Your task to perform on an android device: turn off notifications in google photos Image 0: 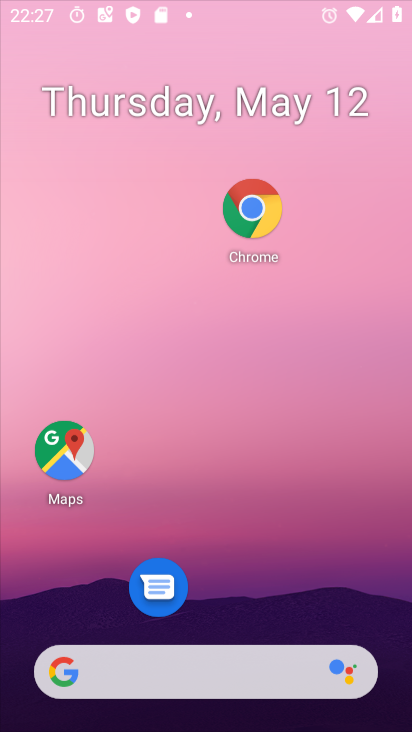
Step 0: drag from (265, 610) to (293, 207)
Your task to perform on an android device: turn off notifications in google photos Image 1: 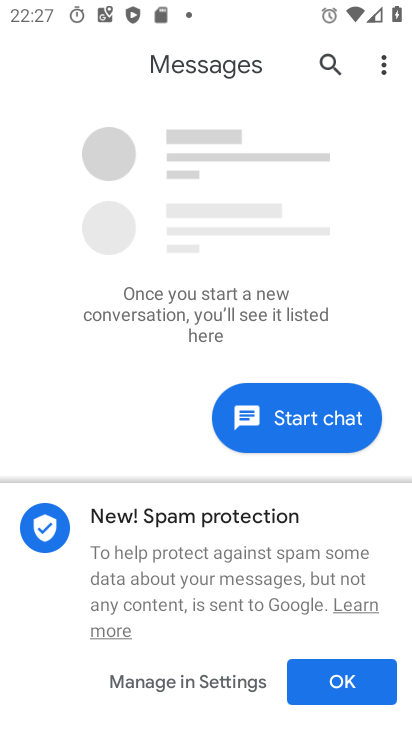
Step 1: press home button
Your task to perform on an android device: turn off notifications in google photos Image 2: 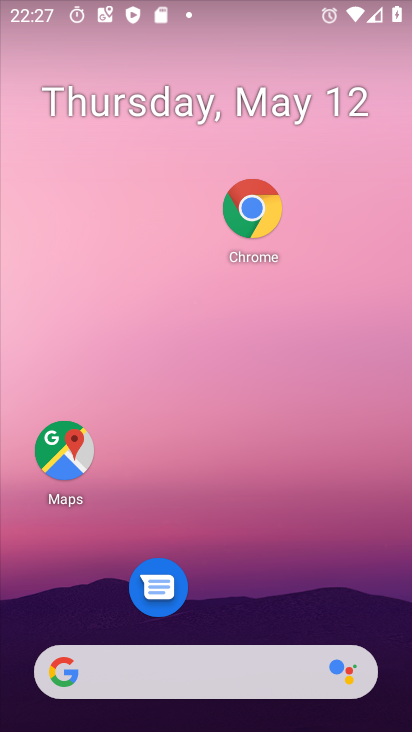
Step 2: drag from (325, 629) to (307, 229)
Your task to perform on an android device: turn off notifications in google photos Image 3: 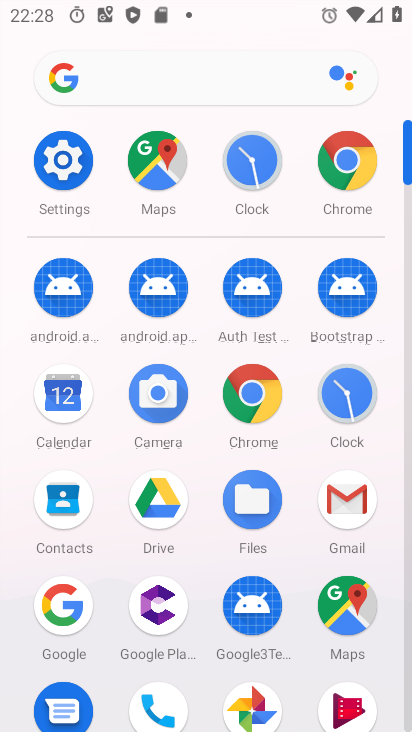
Step 3: drag from (217, 623) to (260, 264)
Your task to perform on an android device: turn off notifications in google photos Image 4: 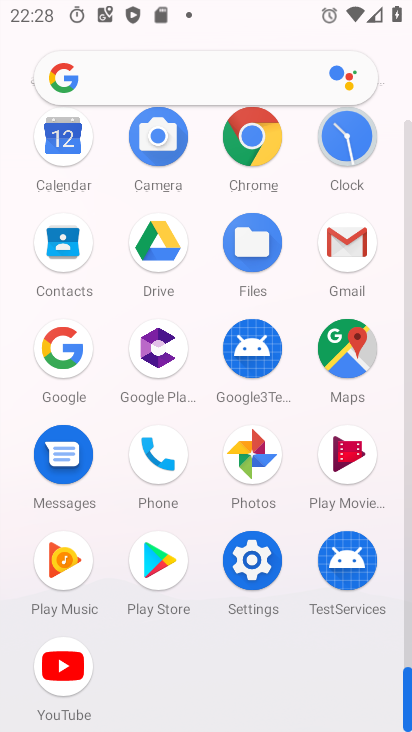
Step 4: click (253, 441)
Your task to perform on an android device: turn off notifications in google photos Image 5: 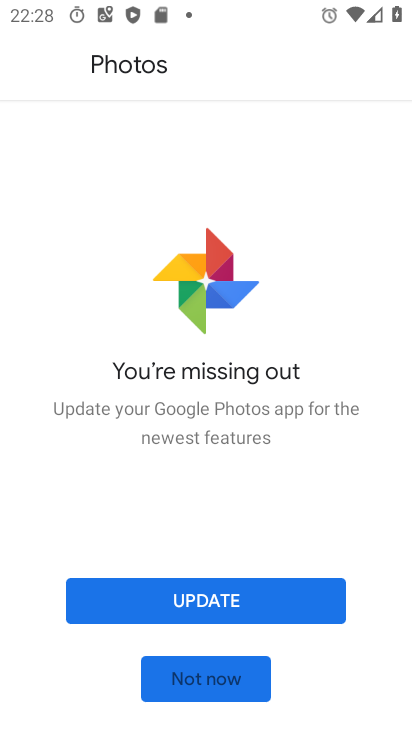
Step 5: click (210, 673)
Your task to perform on an android device: turn off notifications in google photos Image 6: 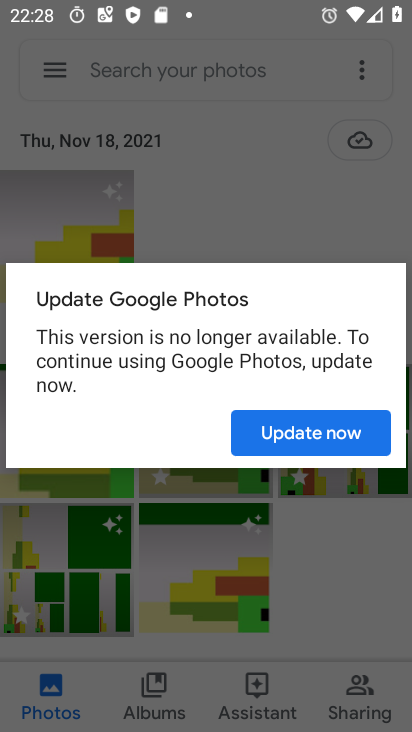
Step 6: click (281, 434)
Your task to perform on an android device: turn off notifications in google photos Image 7: 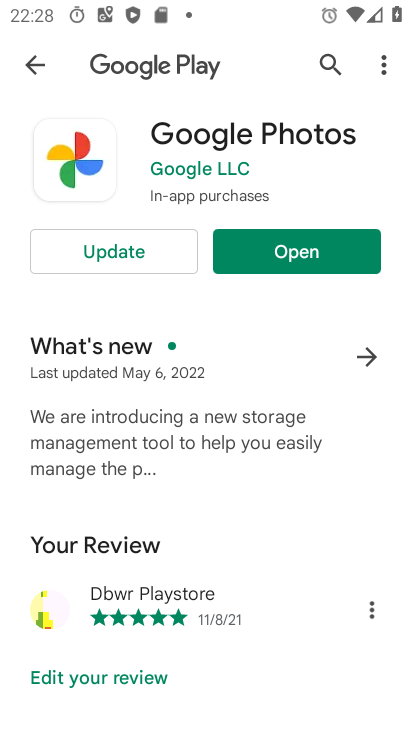
Step 7: press back button
Your task to perform on an android device: turn off notifications in google photos Image 8: 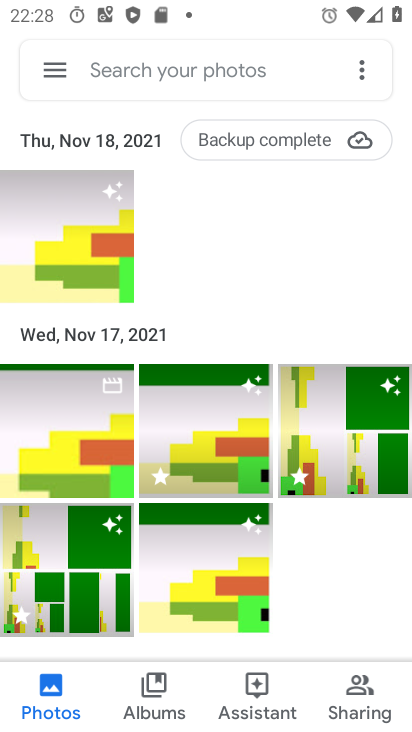
Step 8: click (78, 413)
Your task to perform on an android device: turn off notifications in google photos Image 9: 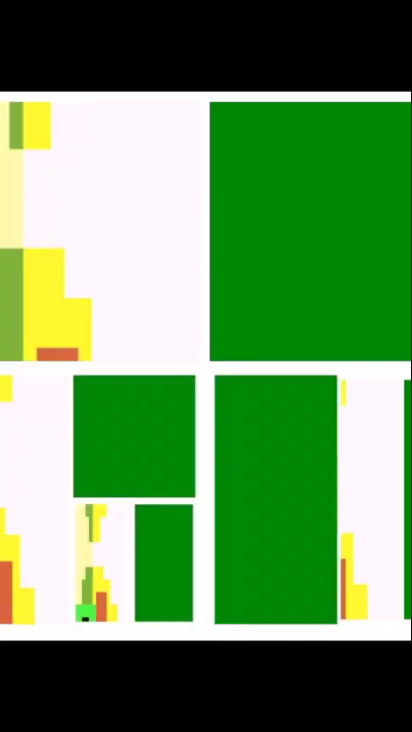
Step 9: press back button
Your task to perform on an android device: turn off notifications in google photos Image 10: 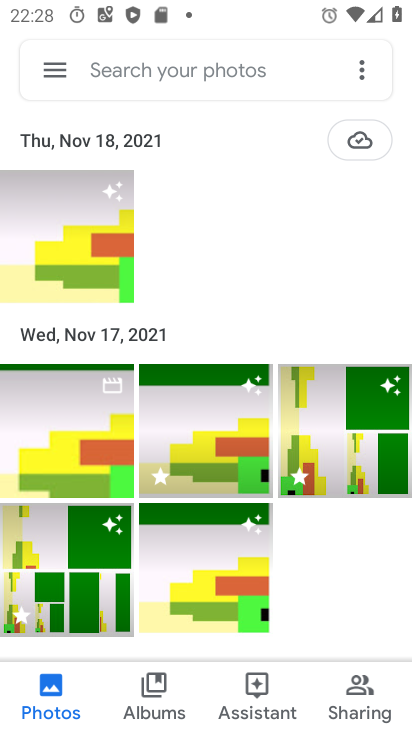
Step 10: click (56, 68)
Your task to perform on an android device: turn off notifications in google photos Image 11: 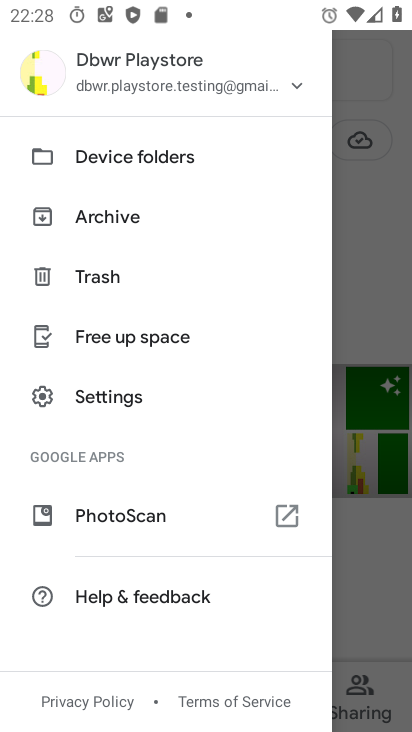
Step 11: drag from (150, 463) to (186, 211)
Your task to perform on an android device: turn off notifications in google photos Image 12: 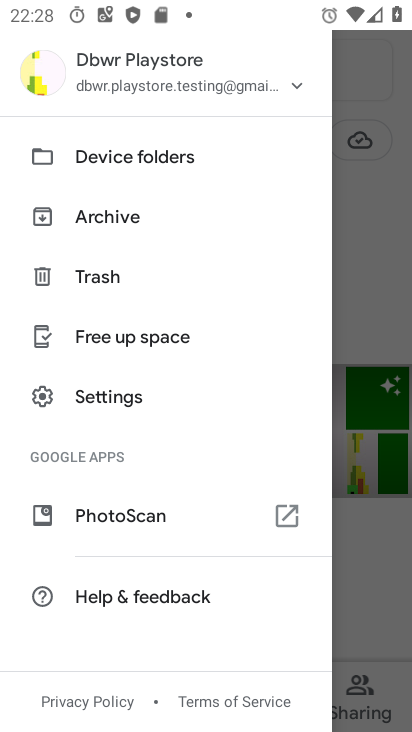
Step 12: click (112, 396)
Your task to perform on an android device: turn off notifications in google photos Image 13: 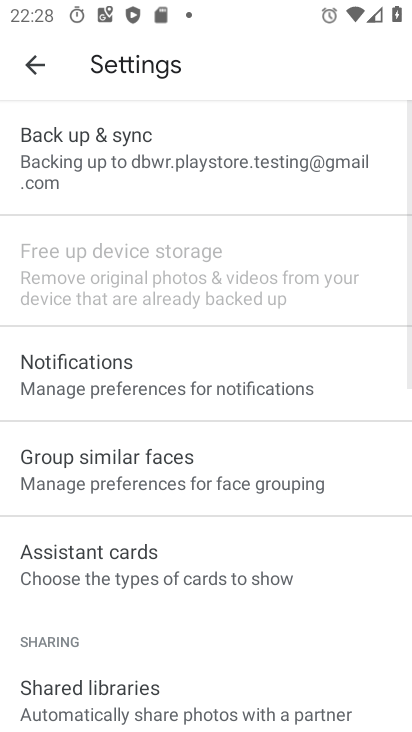
Step 13: click (156, 359)
Your task to perform on an android device: turn off notifications in google photos Image 14: 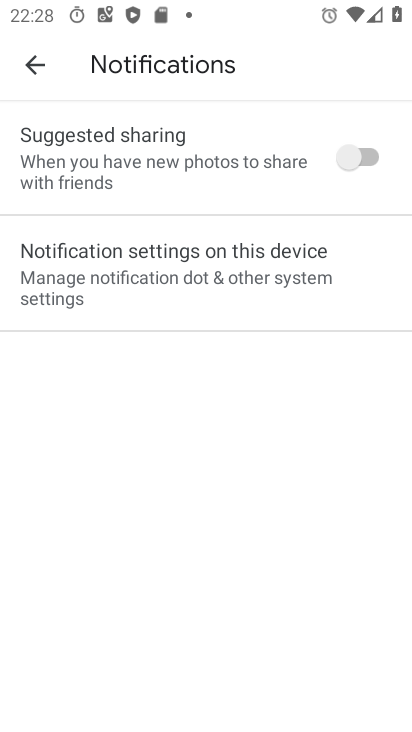
Step 14: click (146, 243)
Your task to perform on an android device: turn off notifications in google photos Image 15: 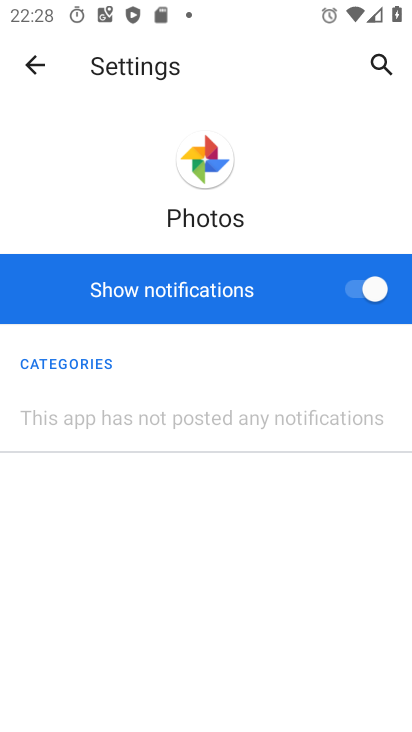
Step 15: click (366, 290)
Your task to perform on an android device: turn off notifications in google photos Image 16: 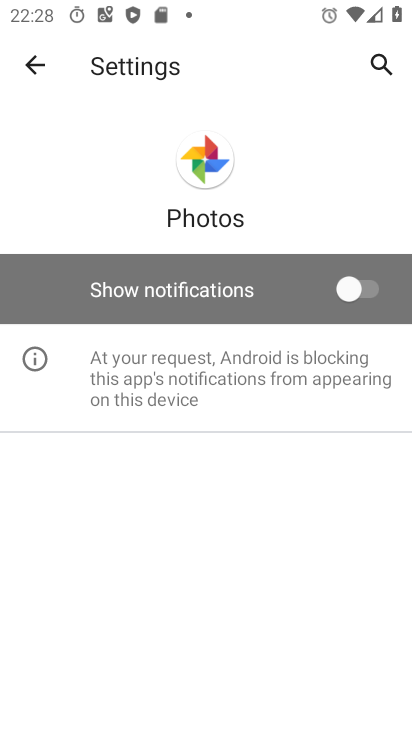
Step 16: task complete